Your task to perform on an android device: Show me productivity apps on the Play Store Image 0: 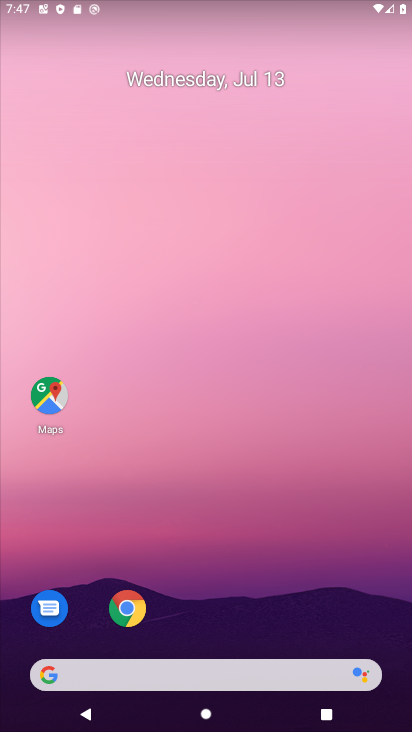
Step 0: drag from (219, 641) to (158, 34)
Your task to perform on an android device: Show me productivity apps on the Play Store Image 1: 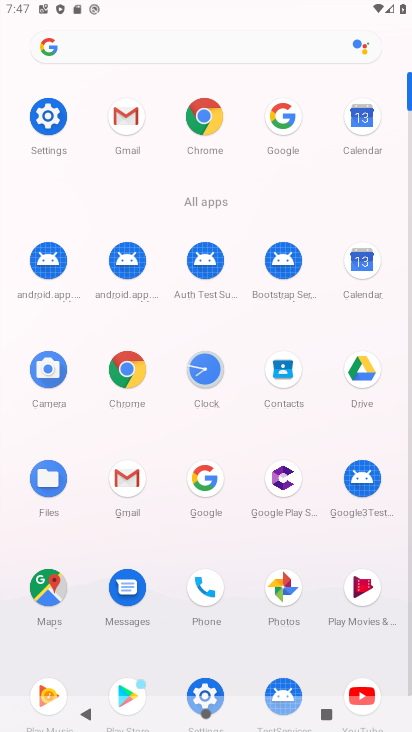
Step 1: click (135, 682)
Your task to perform on an android device: Show me productivity apps on the Play Store Image 2: 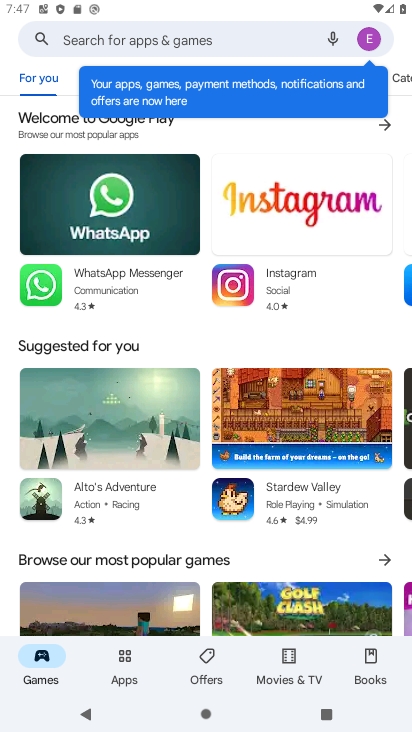
Step 2: click (132, 667)
Your task to perform on an android device: Show me productivity apps on the Play Store Image 3: 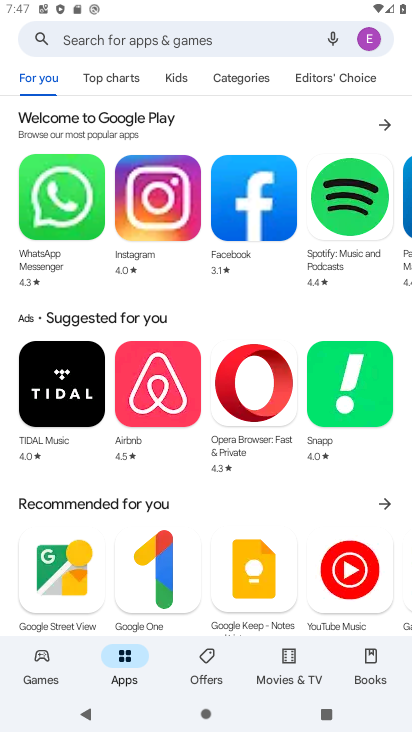
Step 3: click (258, 75)
Your task to perform on an android device: Show me productivity apps on the Play Store Image 4: 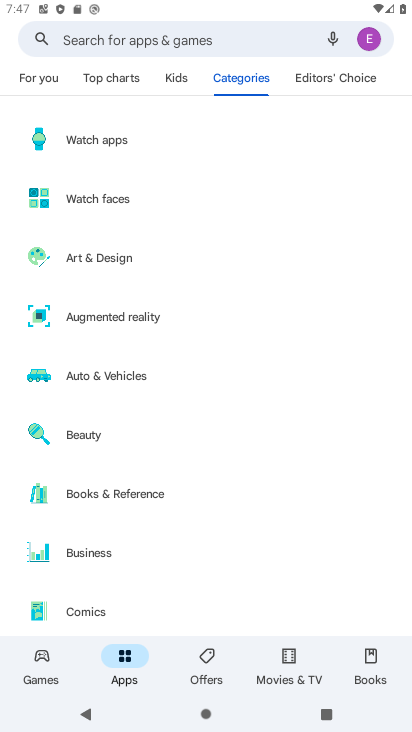
Step 4: drag from (138, 531) to (130, 113)
Your task to perform on an android device: Show me productivity apps on the Play Store Image 5: 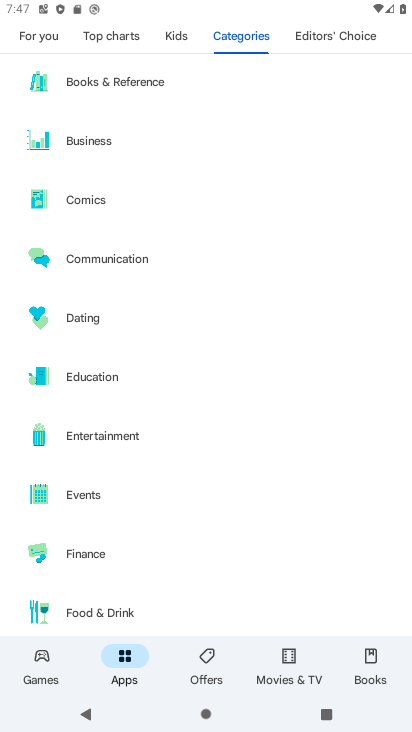
Step 5: drag from (206, 531) to (169, 15)
Your task to perform on an android device: Show me productivity apps on the Play Store Image 6: 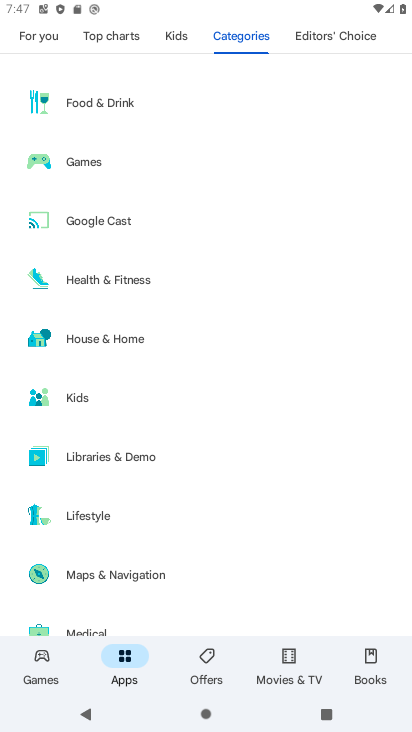
Step 6: drag from (258, 500) to (283, 16)
Your task to perform on an android device: Show me productivity apps on the Play Store Image 7: 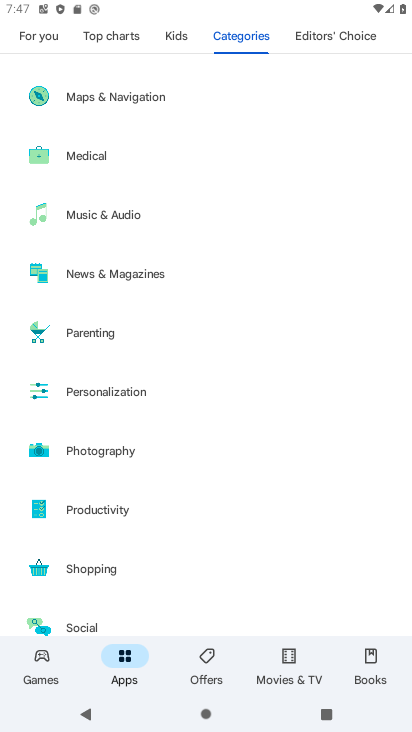
Step 7: drag from (271, 551) to (239, 1)
Your task to perform on an android device: Show me productivity apps on the Play Store Image 8: 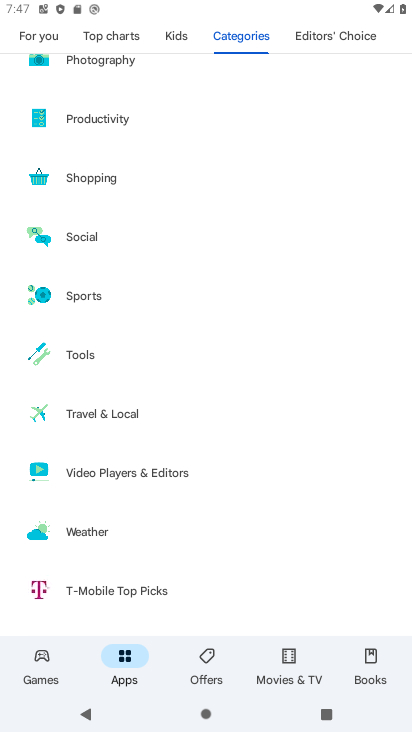
Step 8: click (248, 389)
Your task to perform on an android device: Show me productivity apps on the Play Store Image 9: 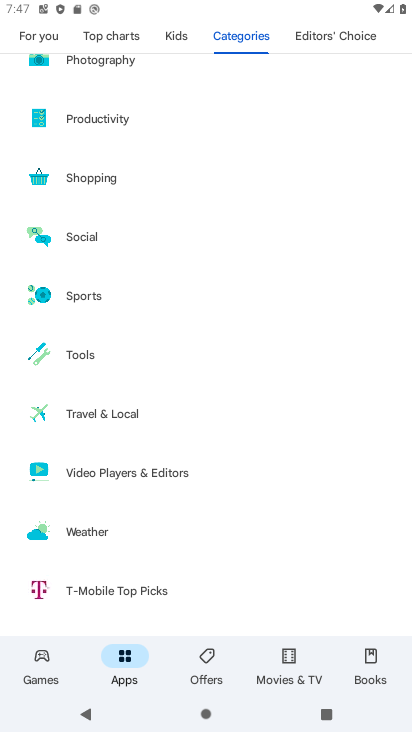
Step 9: click (64, 128)
Your task to perform on an android device: Show me productivity apps on the Play Store Image 10: 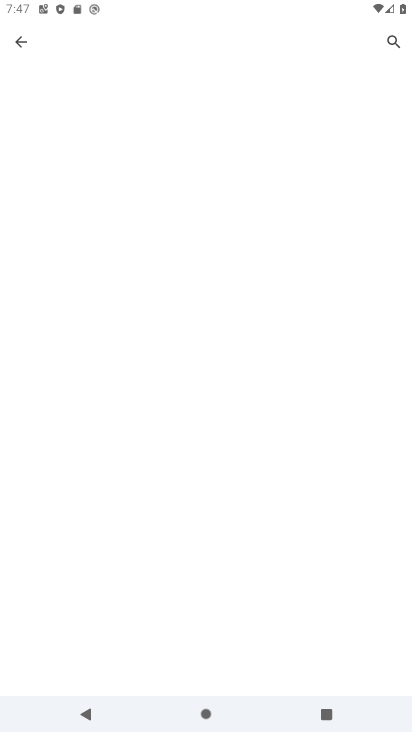
Step 10: task complete